Your task to perform on an android device: See recent photos Image 0: 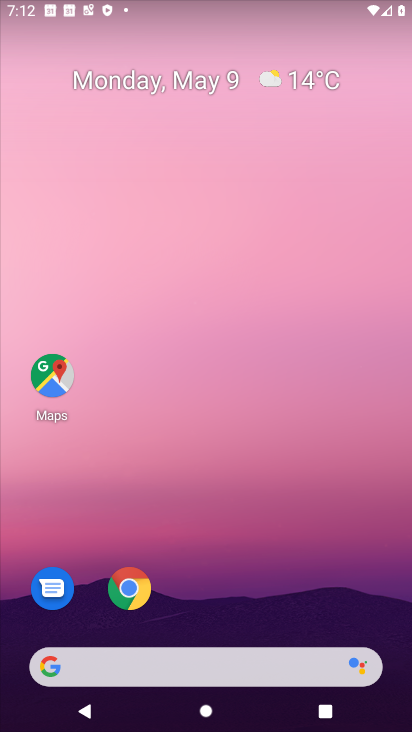
Step 0: drag from (335, 598) to (238, 44)
Your task to perform on an android device: See recent photos Image 1: 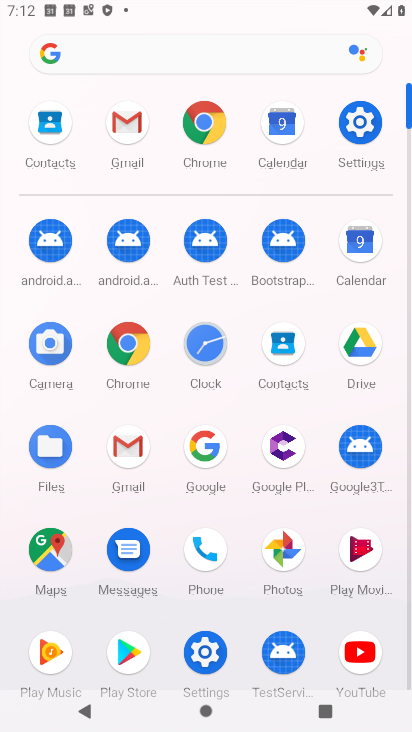
Step 1: click (266, 546)
Your task to perform on an android device: See recent photos Image 2: 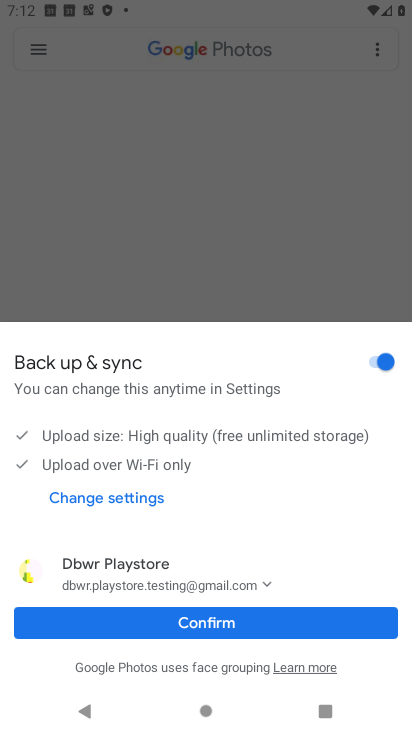
Step 2: click (157, 623)
Your task to perform on an android device: See recent photos Image 3: 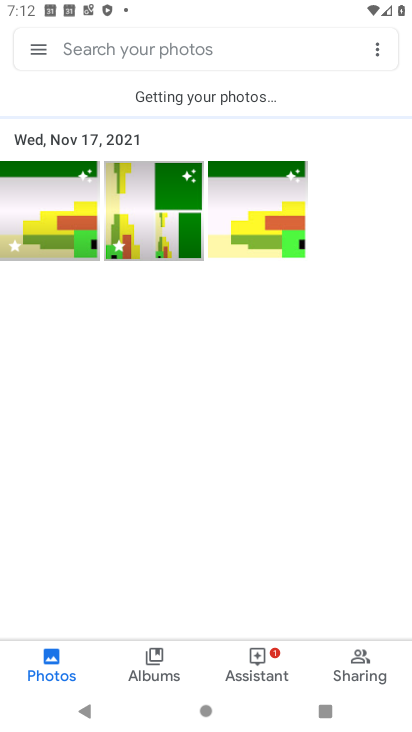
Step 3: click (63, 203)
Your task to perform on an android device: See recent photos Image 4: 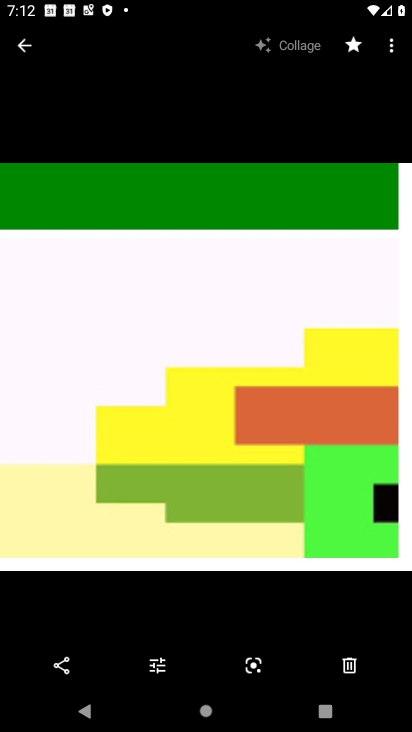
Step 4: task complete